Your task to perform on an android device: Search for vegetarian restaurants on Maps Image 0: 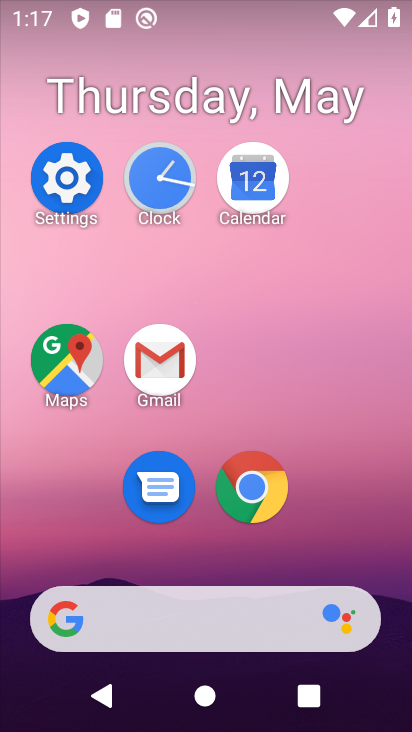
Step 0: click (58, 355)
Your task to perform on an android device: Search for vegetarian restaurants on Maps Image 1: 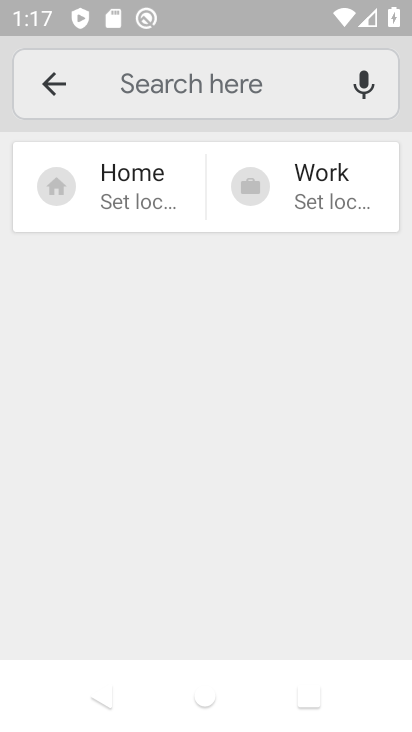
Step 1: click (242, 76)
Your task to perform on an android device: Search for vegetarian restaurants on Maps Image 2: 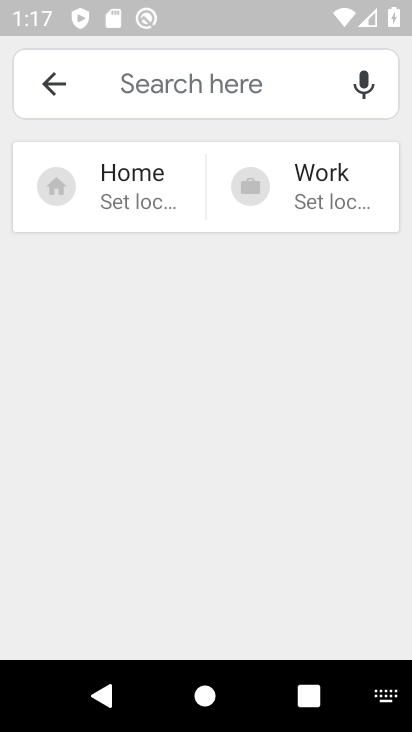
Step 2: type "vegetarian restaurants"
Your task to perform on an android device: Search for vegetarian restaurants on Maps Image 3: 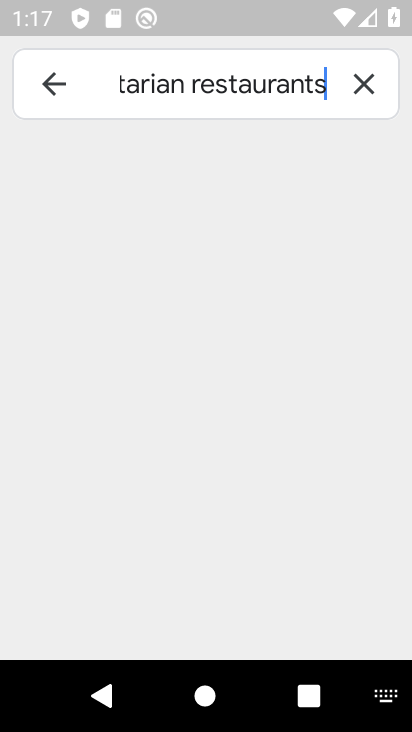
Step 3: task complete